Your task to perform on an android device: Open Chrome and go to settings Image 0: 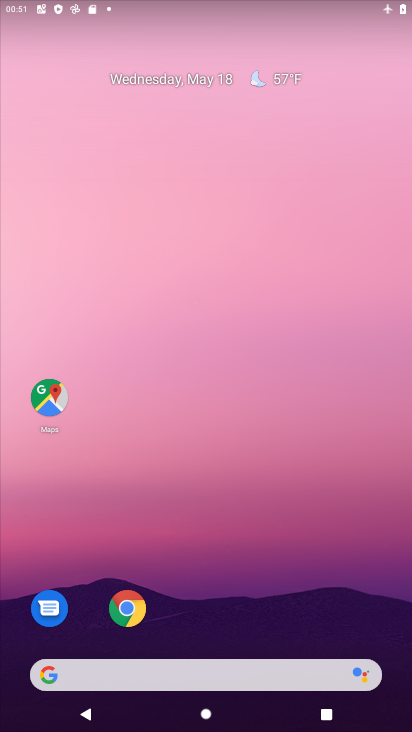
Step 0: click (128, 611)
Your task to perform on an android device: Open Chrome and go to settings Image 1: 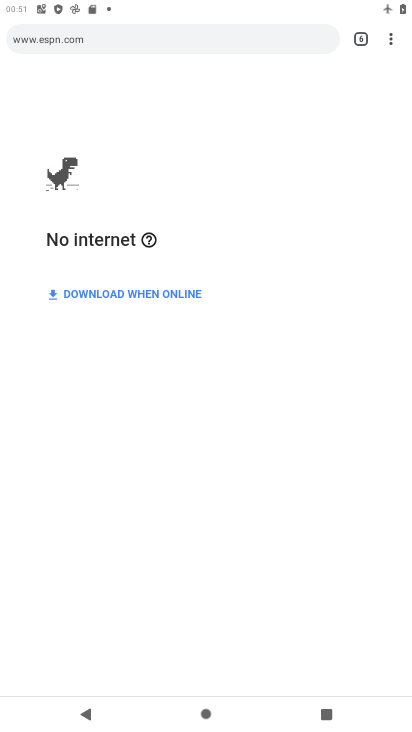
Step 1: press home button
Your task to perform on an android device: Open Chrome and go to settings Image 2: 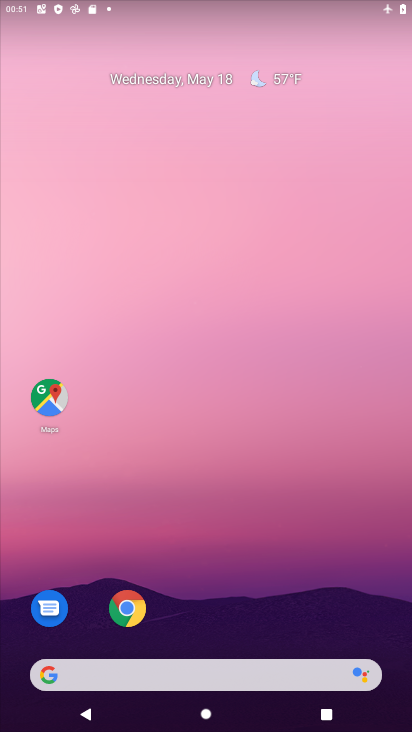
Step 2: click (133, 604)
Your task to perform on an android device: Open Chrome and go to settings Image 3: 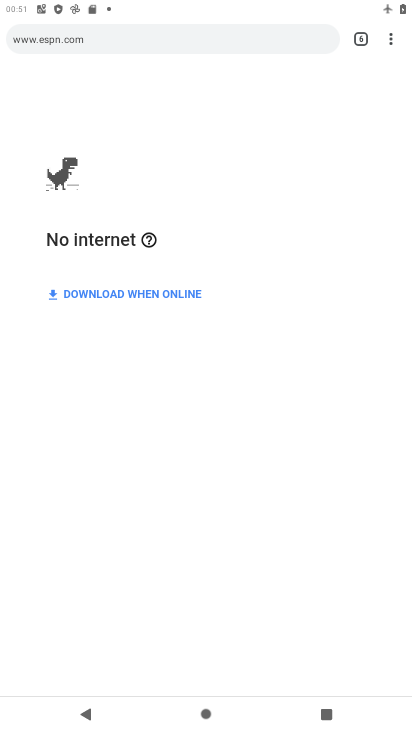
Step 3: click (393, 33)
Your task to perform on an android device: Open Chrome and go to settings Image 4: 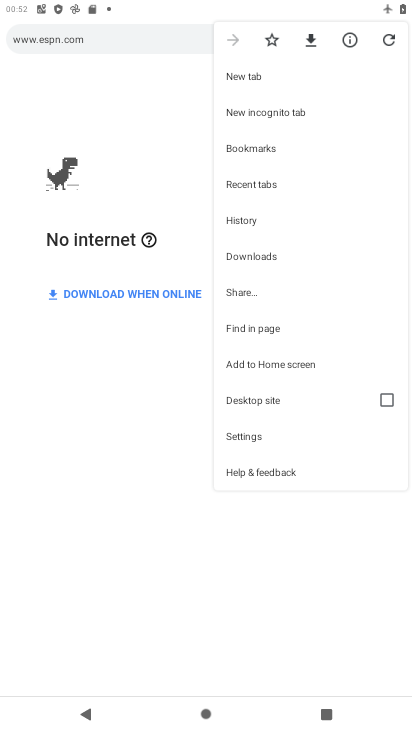
Step 4: click (249, 432)
Your task to perform on an android device: Open Chrome and go to settings Image 5: 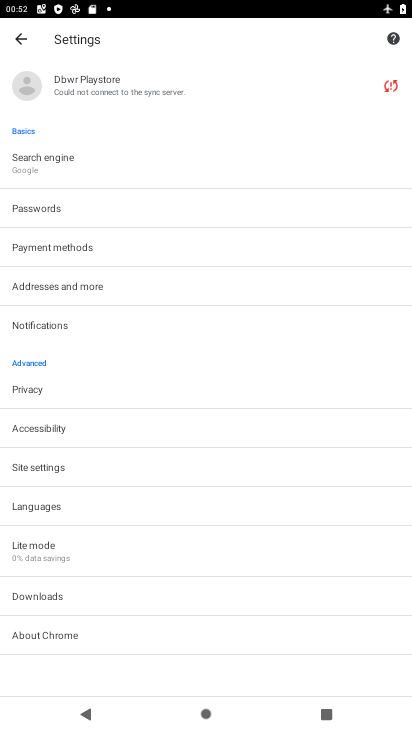
Step 5: task complete